Your task to perform on an android device: Go to Wikipedia Image 0: 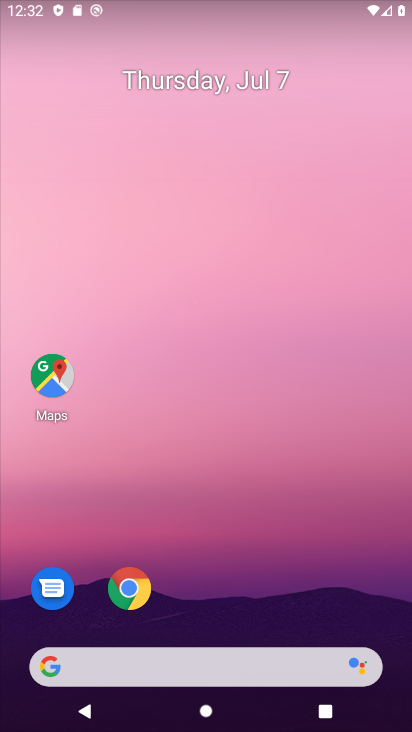
Step 0: drag from (205, 651) to (257, 7)
Your task to perform on an android device: Go to Wikipedia Image 1: 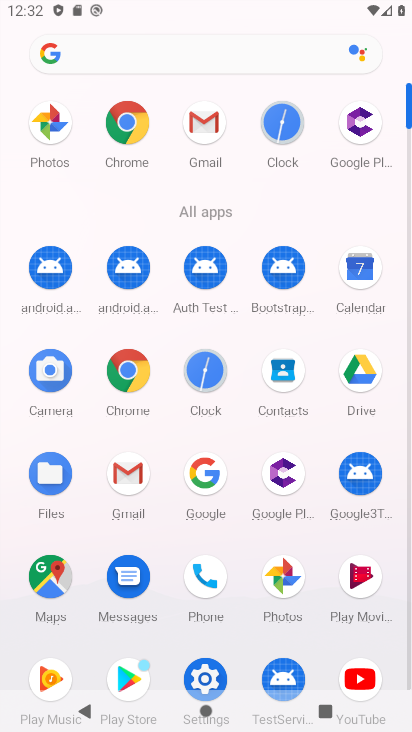
Step 1: click (142, 376)
Your task to perform on an android device: Go to Wikipedia Image 2: 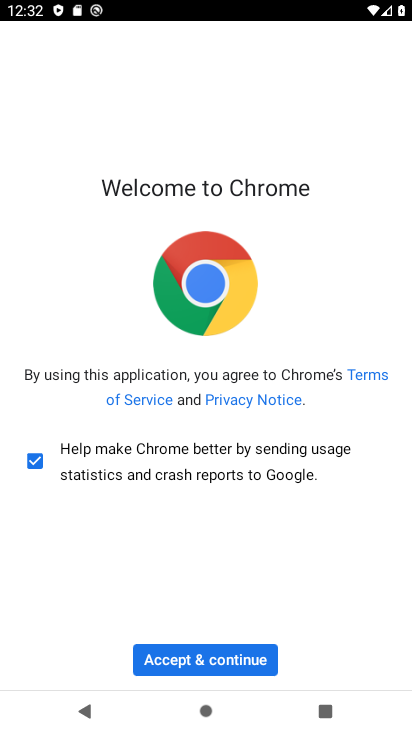
Step 2: click (242, 649)
Your task to perform on an android device: Go to Wikipedia Image 3: 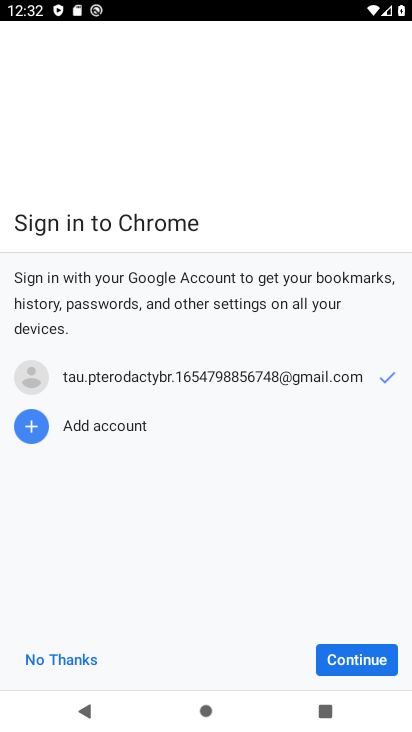
Step 3: click (64, 664)
Your task to perform on an android device: Go to Wikipedia Image 4: 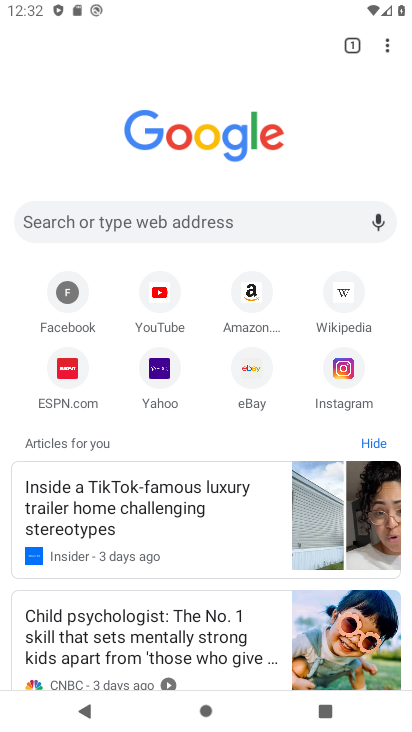
Step 4: click (350, 299)
Your task to perform on an android device: Go to Wikipedia Image 5: 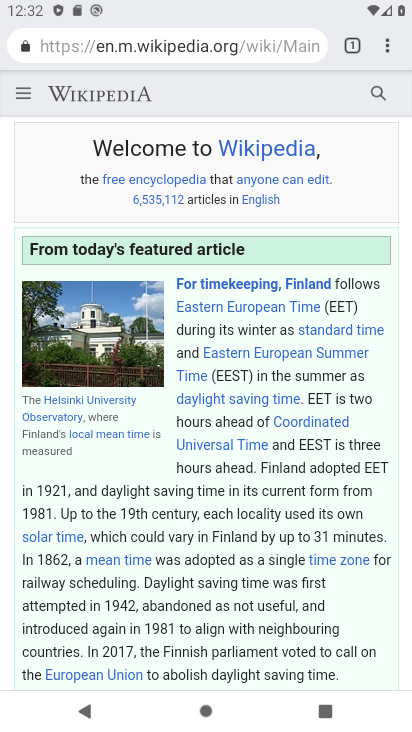
Step 5: task complete